Your task to perform on an android device: change the clock display to analog Image 0: 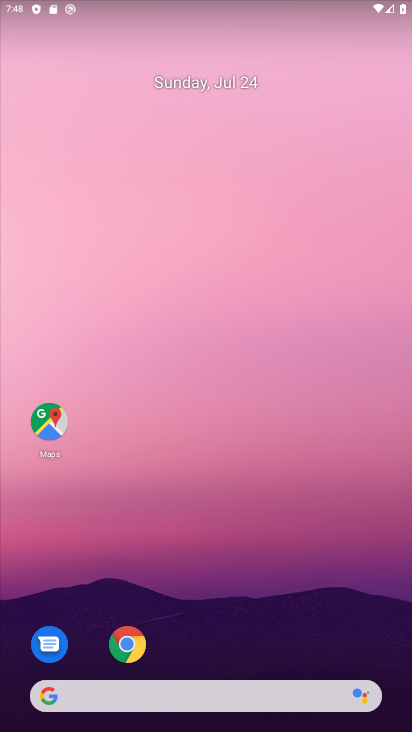
Step 0: drag from (186, 648) to (241, 214)
Your task to perform on an android device: change the clock display to analog Image 1: 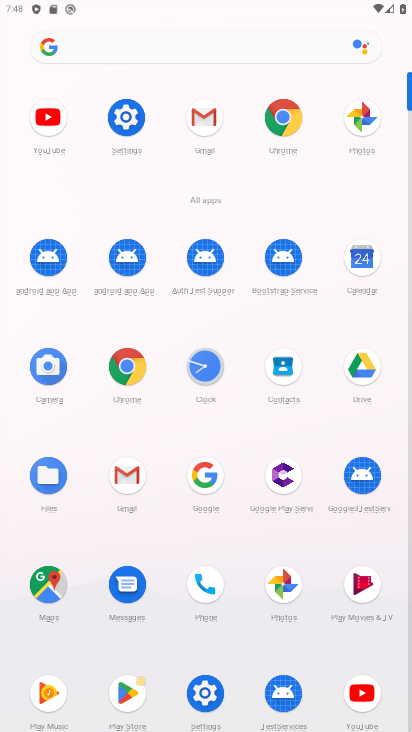
Step 1: click (212, 373)
Your task to perform on an android device: change the clock display to analog Image 2: 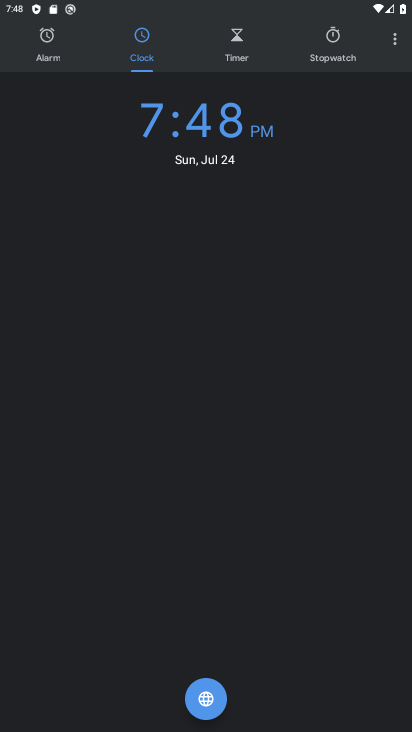
Step 2: click (391, 45)
Your task to perform on an android device: change the clock display to analog Image 3: 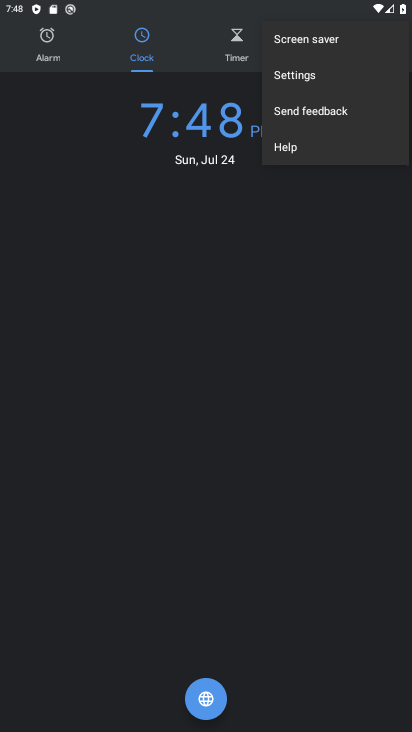
Step 3: click (289, 72)
Your task to perform on an android device: change the clock display to analog Image 4: 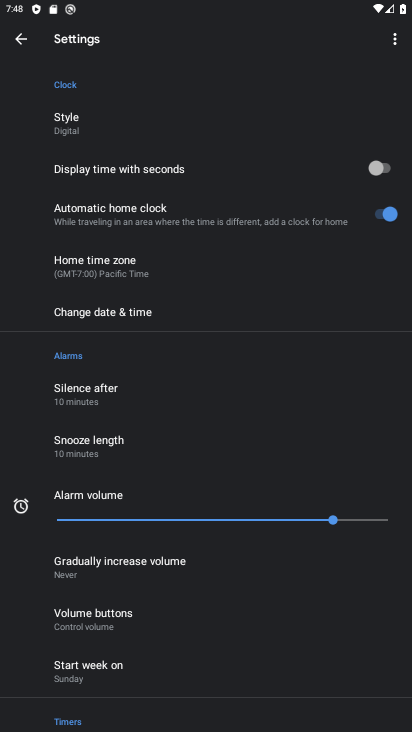
Step 4: click (68, 131)
Your task to perform on an android device: change the clock display to analog Image 5: 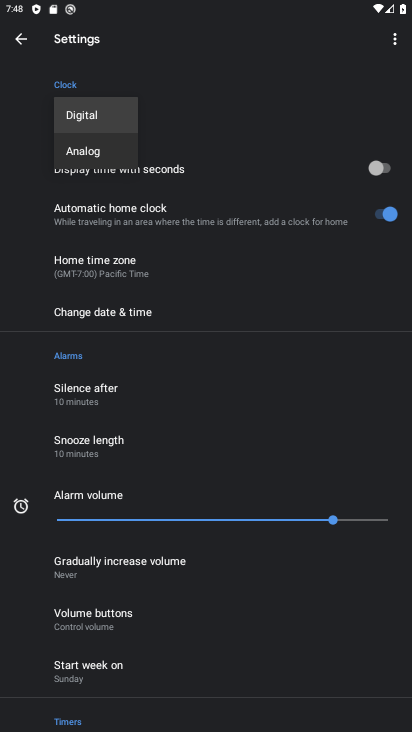
Step 5: click (100, 148)
Your task to perform on an android device: change the clock display to analog Image 6: 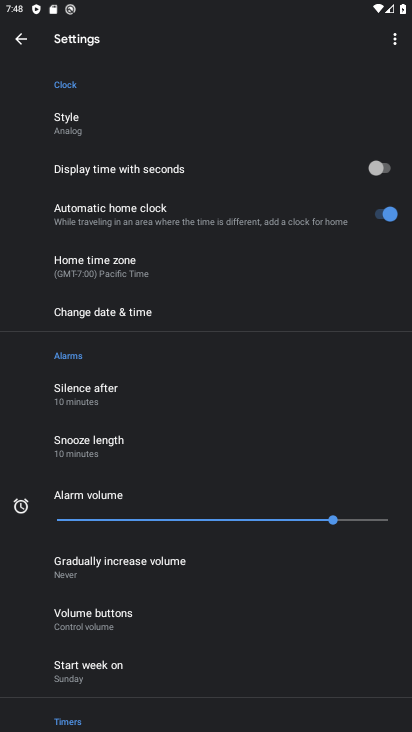
Step 6: task complete